Your task to perform on an android device: make emails show in primary in the gmail app Image 0: 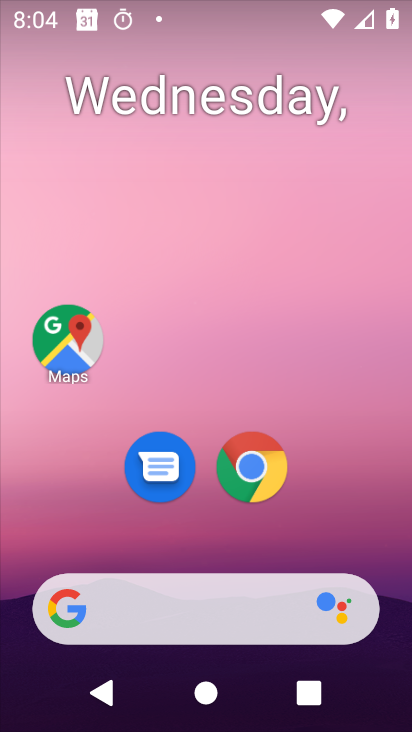
Step 0: drag from (374, 545) to (373, 45)
Your task to perform on an android device: make emails show in primary in the gmail app Image 1: 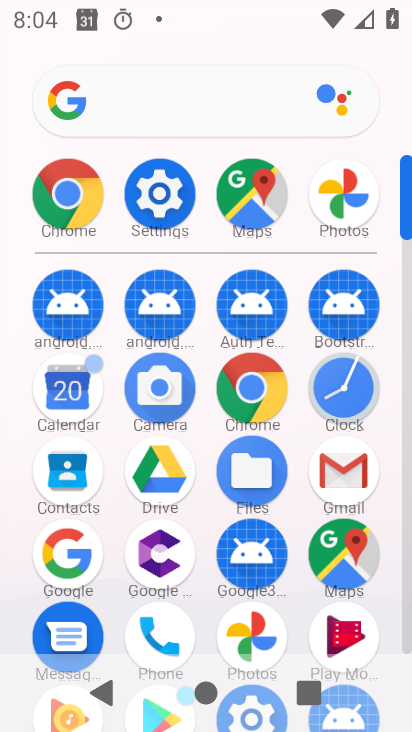
Step 1: click (338, 446)
Your task to perform on an android device: make emails show in primary in the gmail app Image 2: 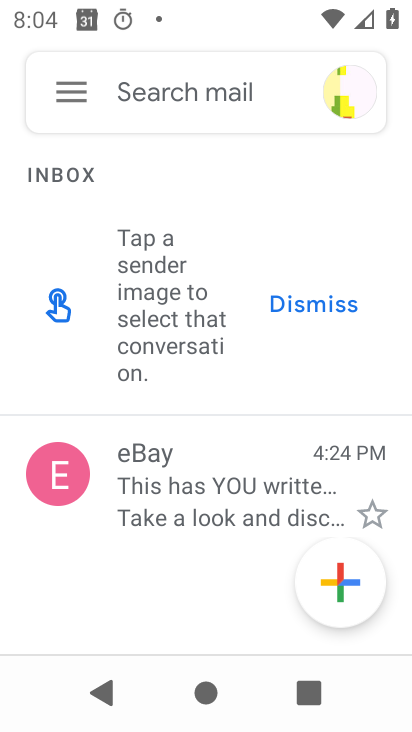
Step 2: click (59, 89)
Your task to perform on an android device: make emails show in primary in the gmail app Image 3: 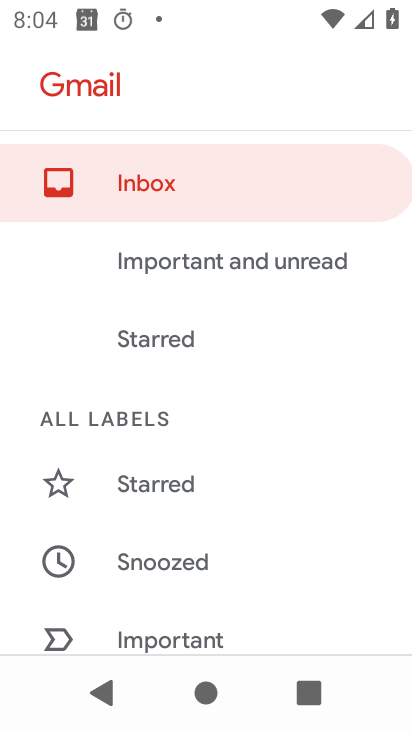
Step 3: drag from (300, 347) to (300, 218)
Your task to perform on an android device: make emails show in primary in the gmail app Image 4: 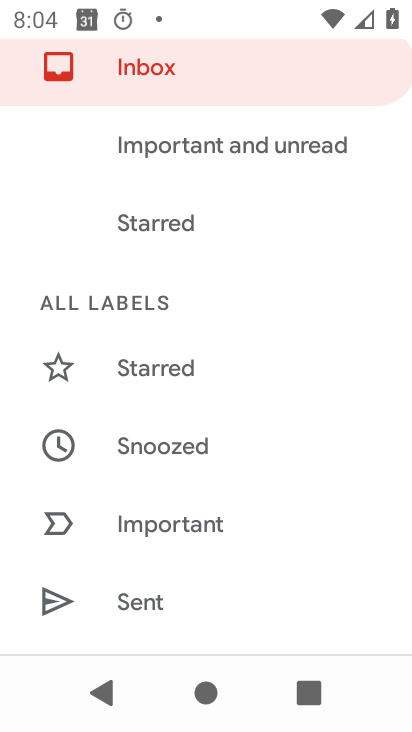
Step 4: drag from (300, 603) to (336, 179)
Your task to perform on an android device: make emails show in primary in the gmail app Image 5: 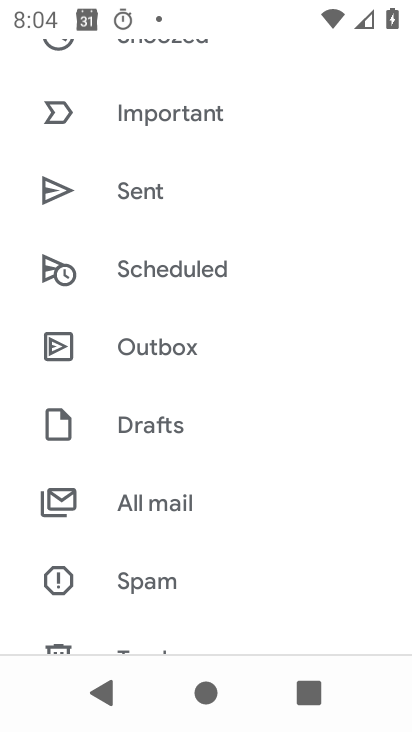
Step 5: drag from (305, 521) to (316, 214)
Your task to perform on an android device: make emails show in primary in the gmail app Image 6: 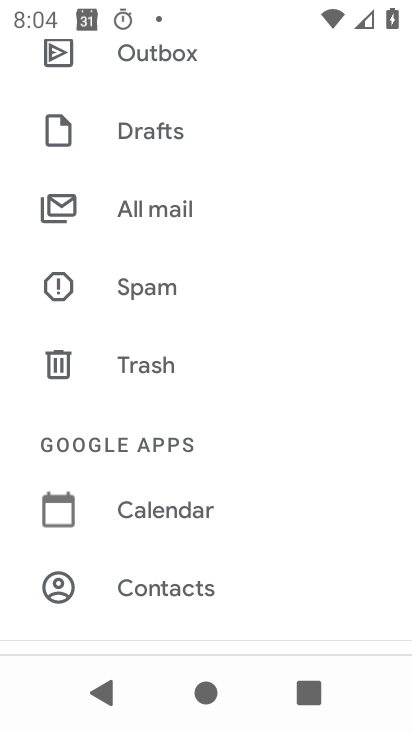
Step 6: drag from (320, 249) to (330, 136)
Your task to perform on an android device: make emails show in primary in the gmail app Image 7: 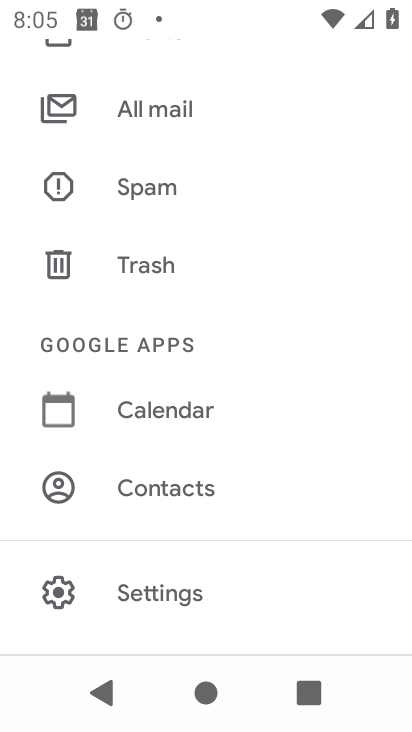
Step 7: click (157, 586)
Your task to perform on an android device: make emails show in primary in the gmail app Image 8: 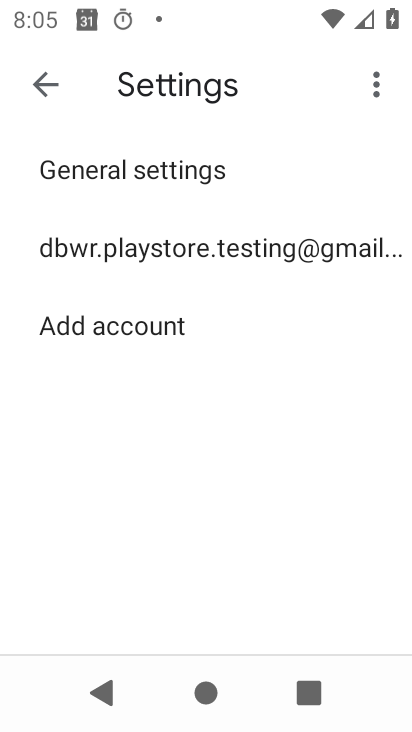
Step 8: click (129, 243)
Your task to perform on an android device: make emails show in primary in the gmail app Image 9: 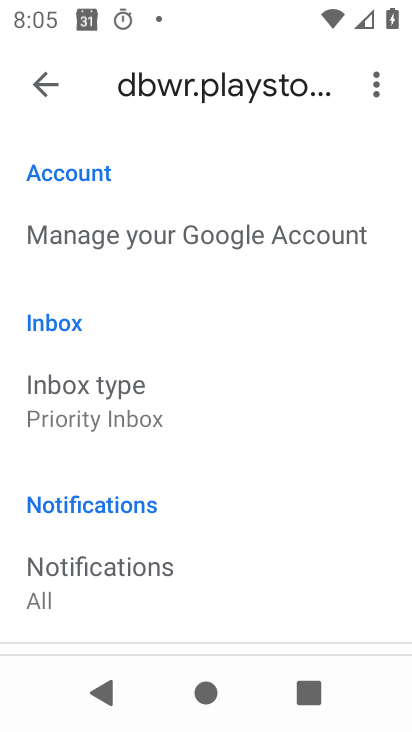
Step 9: click (89, 404)
Your task to perform on an android device: make emails show in primary in the gmail app Image 10: 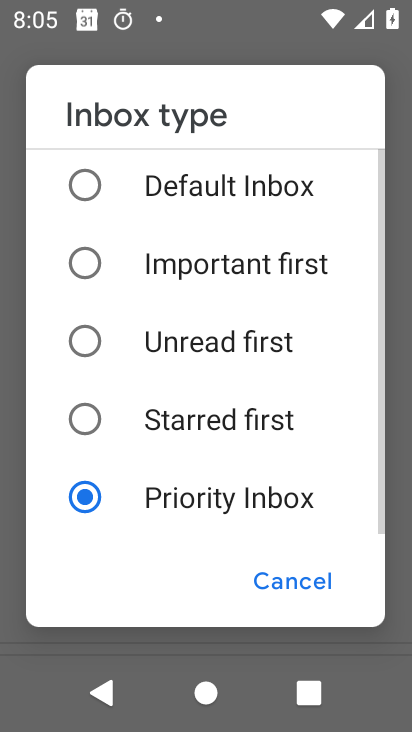
Step 10: click (92, 180)
Your task to perform on an android device: make emails show in primary in the gmail app Image 11: 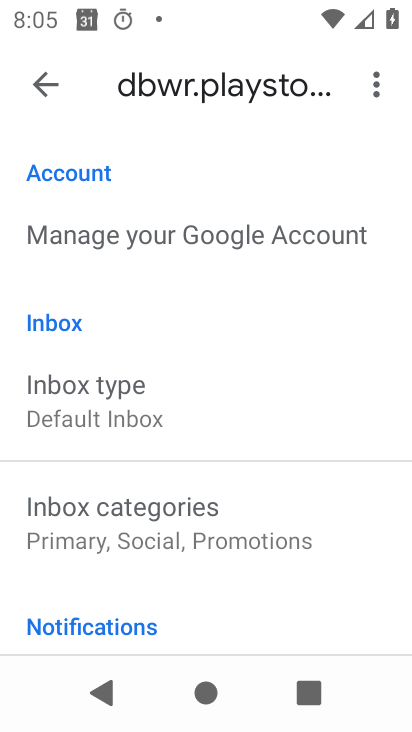
Step 11: click (86, 532)
Your task to perform on an android device: make emails show in primary in the gmail app Image 12: 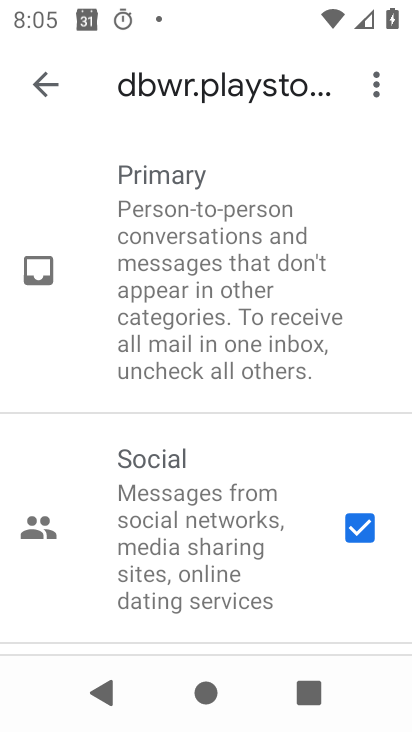
Step 12: click (365, 513)
Your task to perform on an android device: make emails show in primary in the gmail app Image 13: 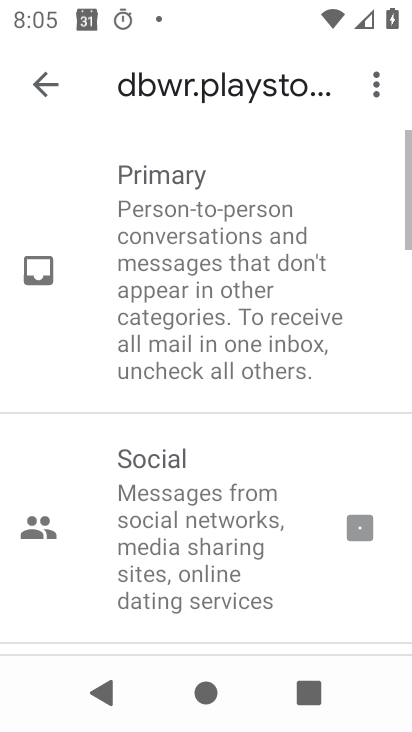
Step 13: drag from (285, 596) to (326, 232)
Your task to perform on an android device: make emails show in primary in the gmail app Image 14: 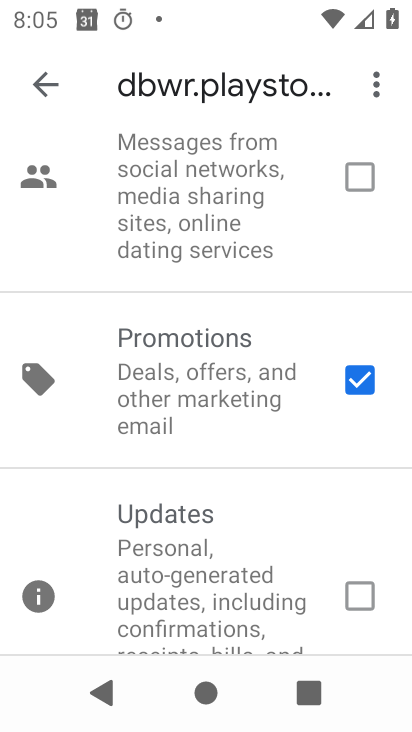
Step 14: click (358, 375)
Your task to perform on an android device: make emails show in primary in the gmail app Image 15: 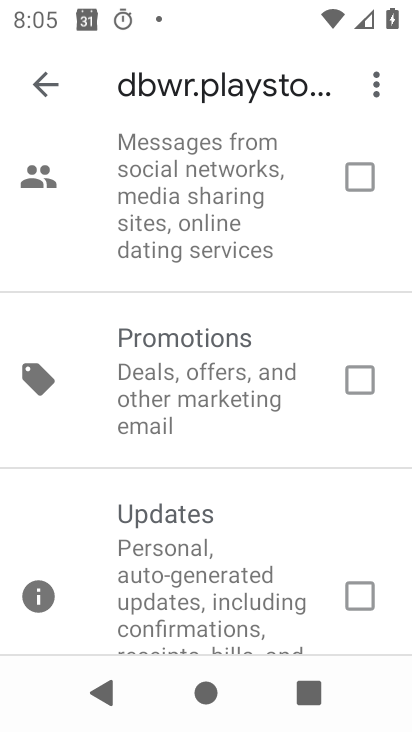
Step 15: drag from (240, 212) to (233, 534)
Your task to perform on an android device: make emails show in primary in the gmail app Image 16: 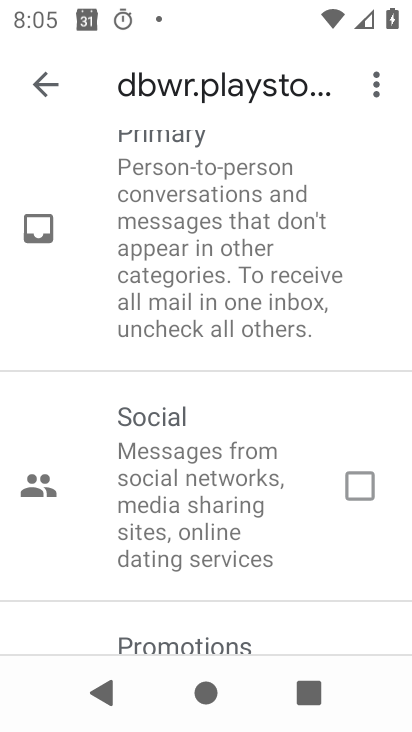
Step 16: click (31, 76)
Your task to perform on an android device: make emails show in primary in the gmail app Image 17: 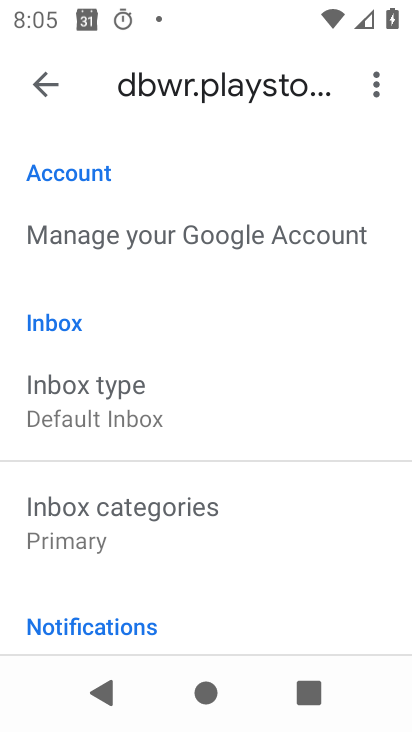
Step 17: task complete